Your task to perform on an android device: Open wifi settings Image 0: 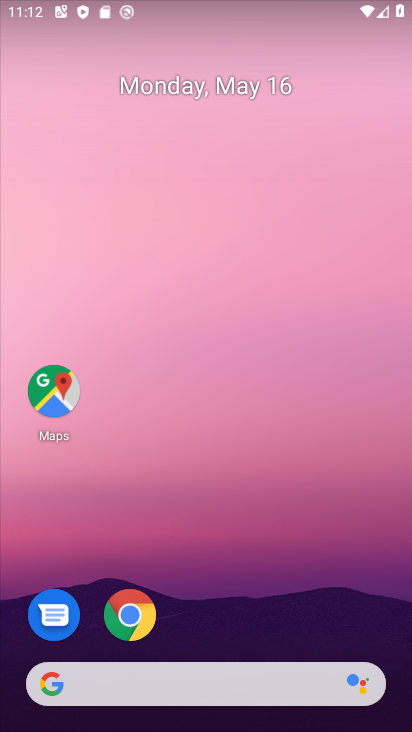
Step 0: drag from (221, 726) to (219, 274)
Your task to perform on an android device: Open wifi settings Image 1: 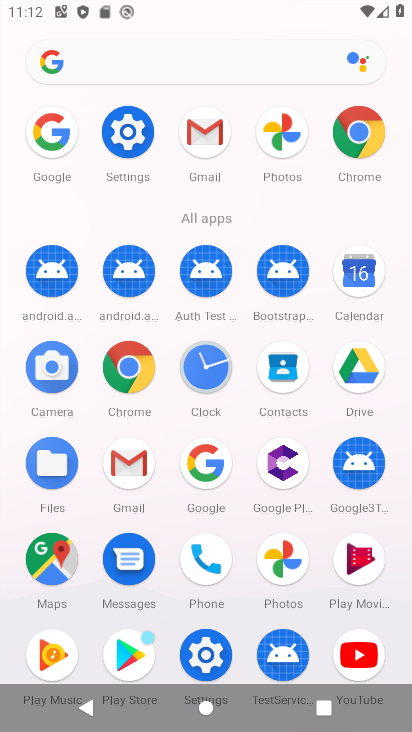
Step 1: click (119, 133)
Your task to perform on an android device: Open wifi settings Image 2: 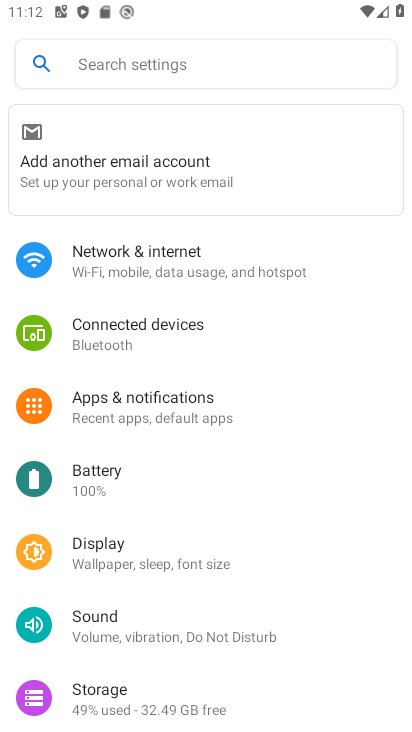
Step 2: click (143, 261)
Your task to perform on an android device: Open wifi settings Image 3: 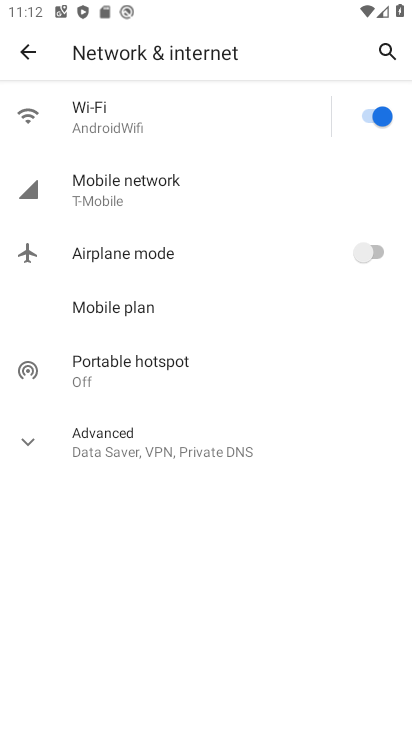
Step 3: click (103, 122)
Your task to perform on an android device: Open wifi settings Image 4: 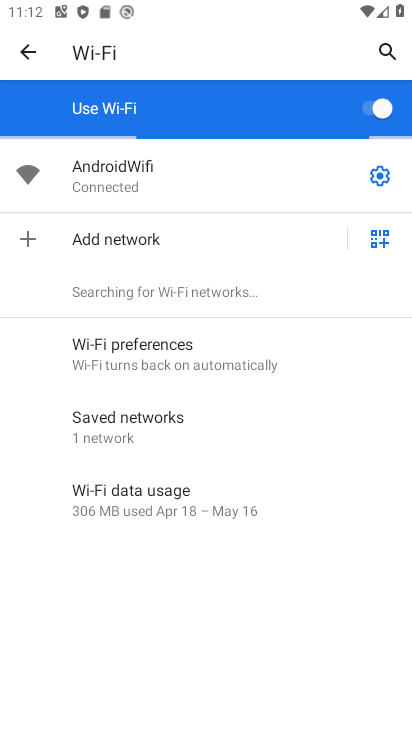
Step 4: task complete